Your task to perform on an android device: turn notification dots on Image 0: 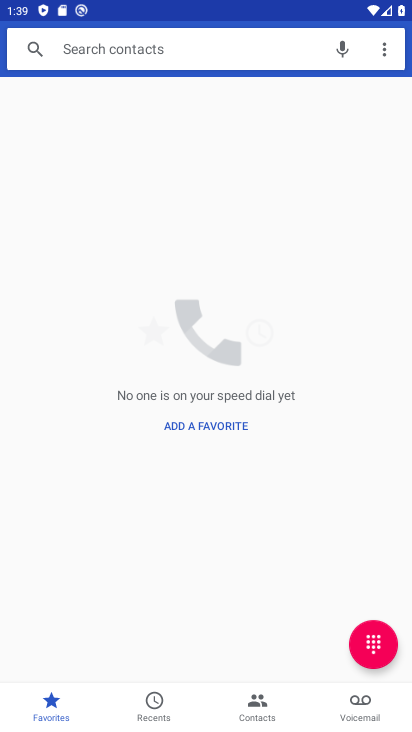
Step 0: press home button
Your task to perform on an android device: turn notification dots on Image 1: 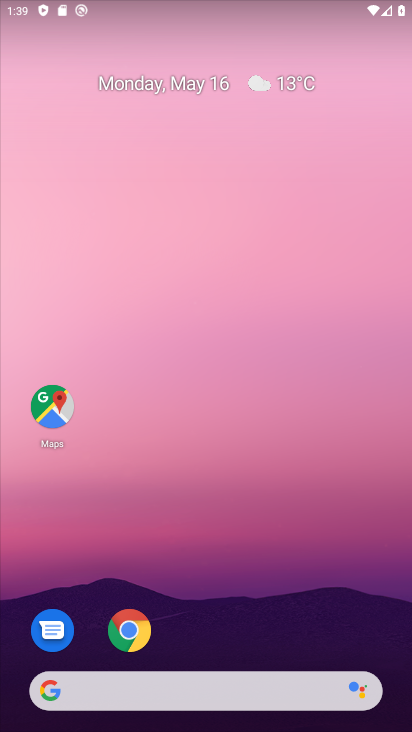
Step 1: drag from (226, 613) to (245, 301)
Your task to perform on an android device: turn notification dots on Image 2: 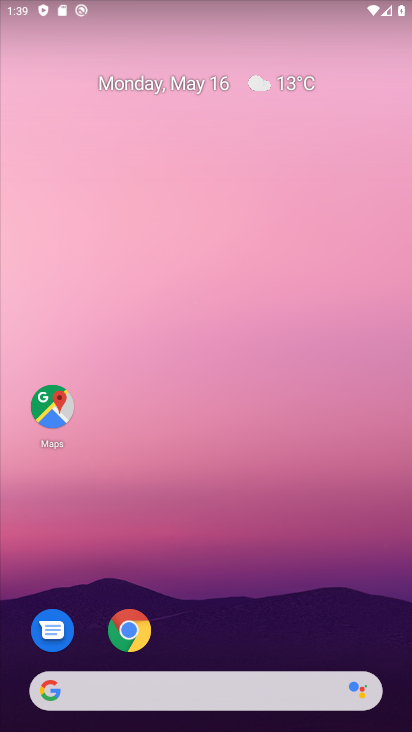
Step 2: click (294, 587)
Your task to perform on an android device: turn notification dots on Image 3: 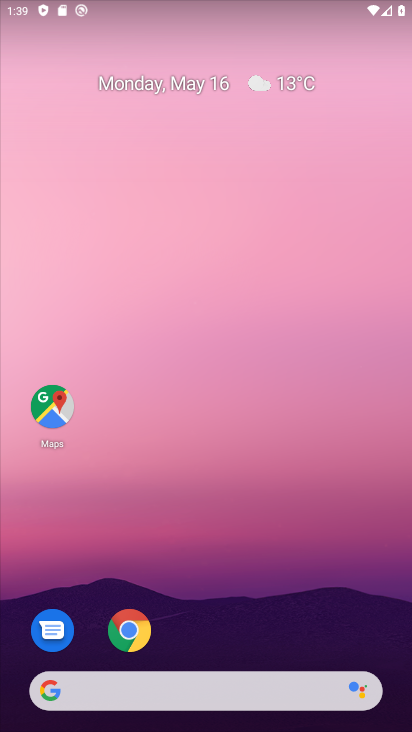
Step 3: drag from (319, 253) to (352, 114)
Your task to perform on an android device: turn notification dots on Image 4: 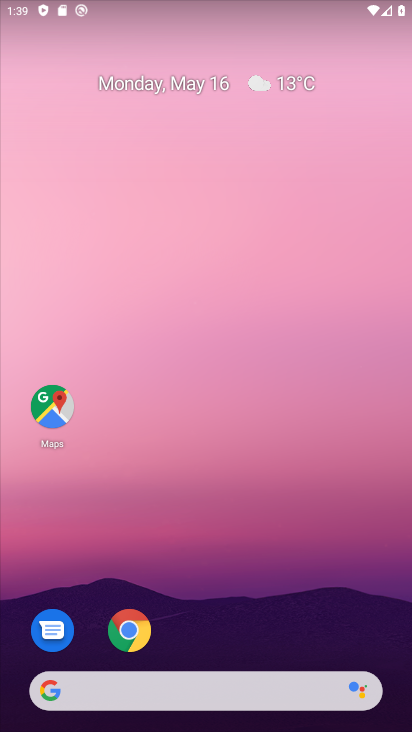
Step 4: click (216, 157)
Your task to perform on an android device: turn notification dots on Image 5: 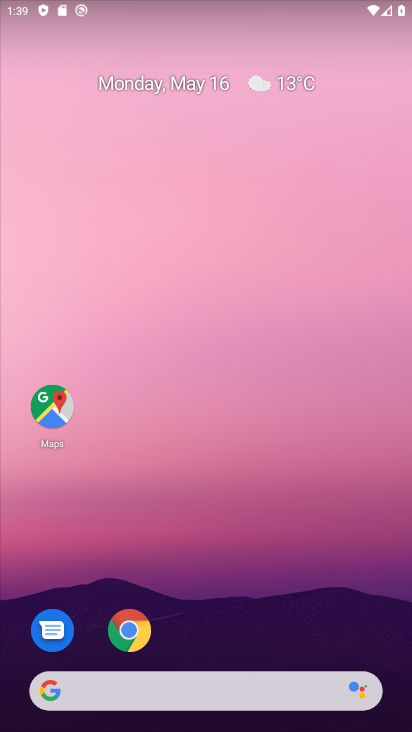
Step 5: drag from (299, 643) to (266, 195)
Your task to perform on an android device: turn notification dots on Image 6: 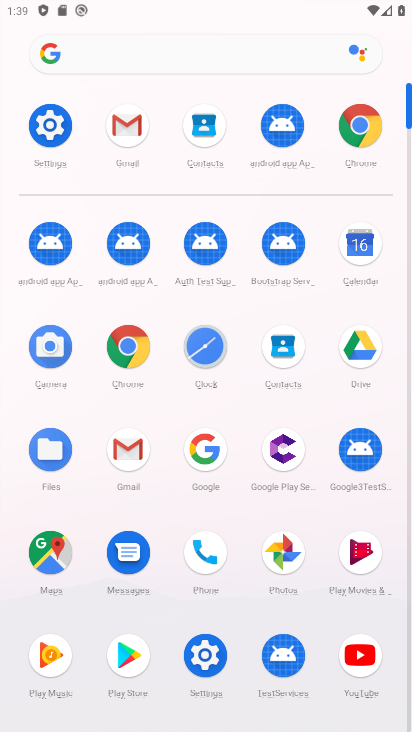
Step 6: click (42, 128)
Your task to perform on an android device: turn notification dots on Image 7: 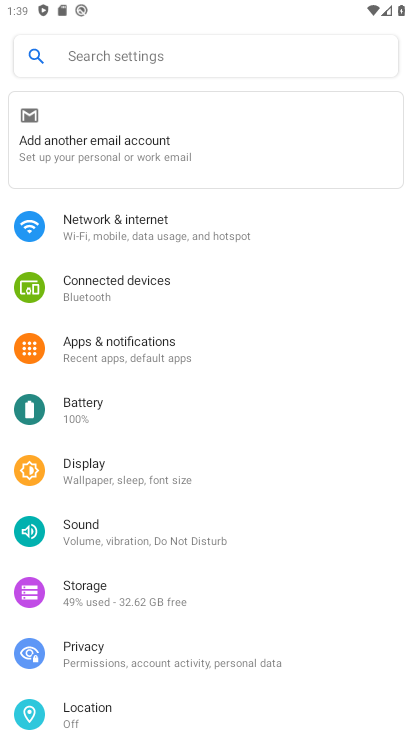
Step 7: click (171, 338)
Your task to perform on an android device: turn notification dots on Image 8: 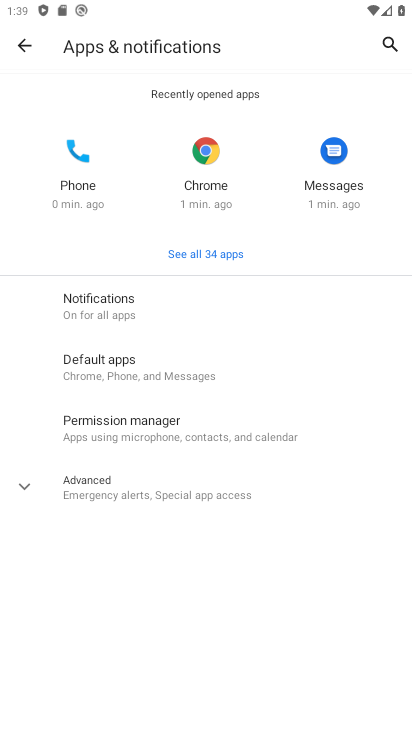
Step 8: click (208, 322)
Your task to perform on an android device: turn notification dots on Image 9: 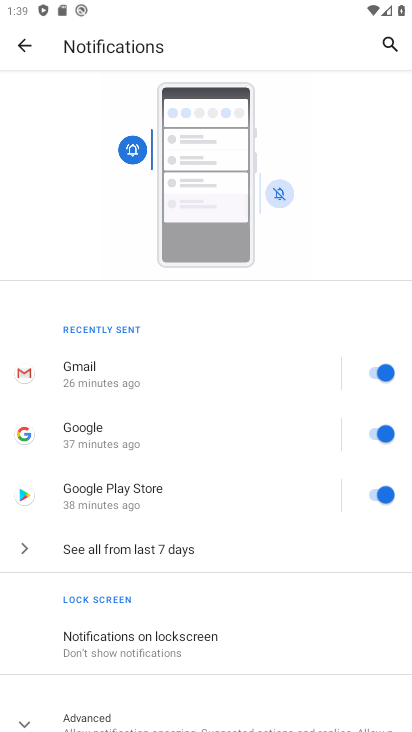
Step 9: drag from (255, 662) to (249, 234)
Your task to perform on an android device: turn notification dots on Image 10: 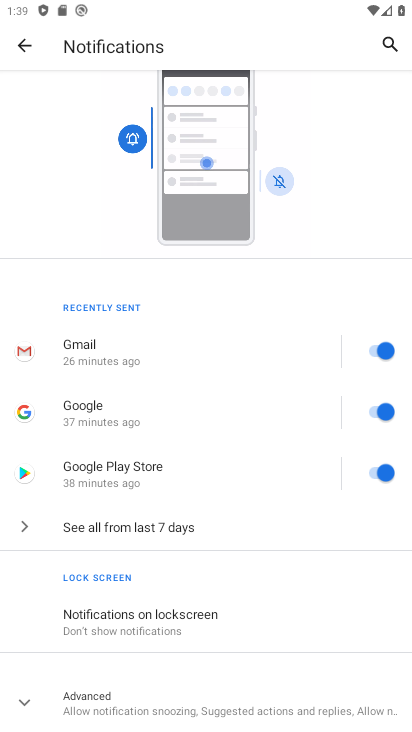
Step 10: click (243, 685)
Your task to perform on an android device: turn notification dots on Image 11: 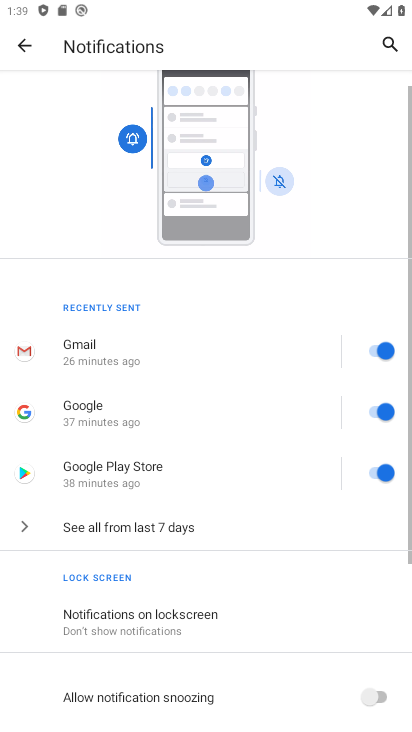
Step 11: drag from (247, 693) to (226, 290)
Your task to perform on an android device: turn notification dots on Image 12: 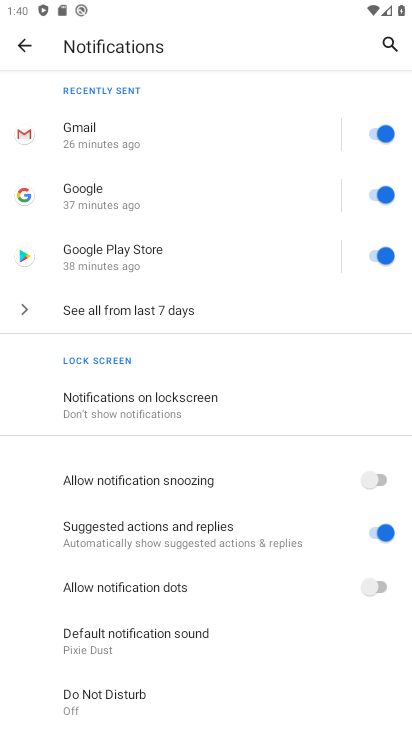
Step 12: click (368, 585)
Your task to perform on an android device: turn notification dots on Image 13: 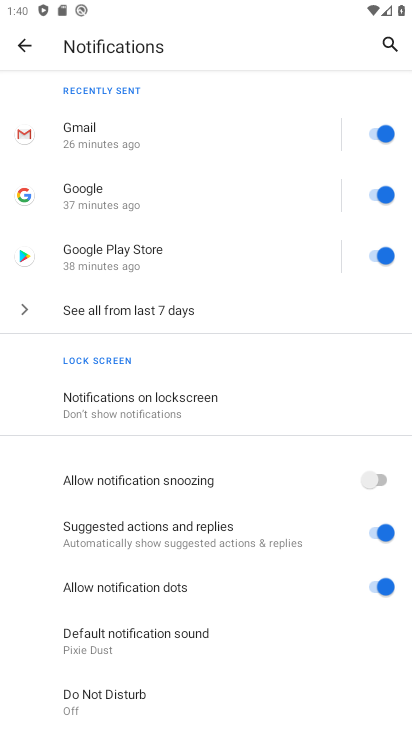
Step 13: task complete